Your task to perform on an android device: Go to accessibility settings Image 0: 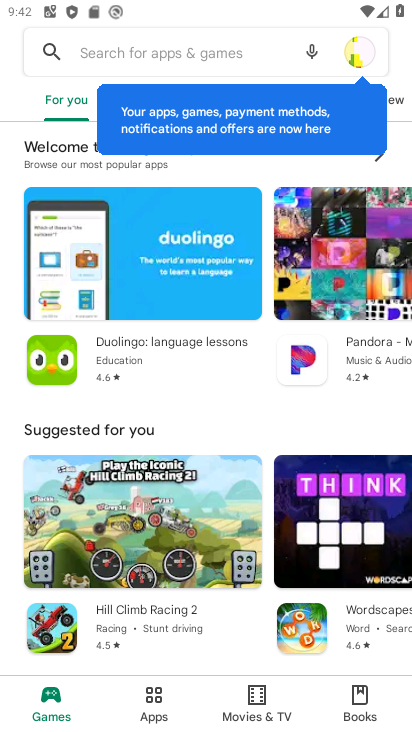
Step 0: press home button
Your task to perform on an android device: Go to accessibility settings Image 1: 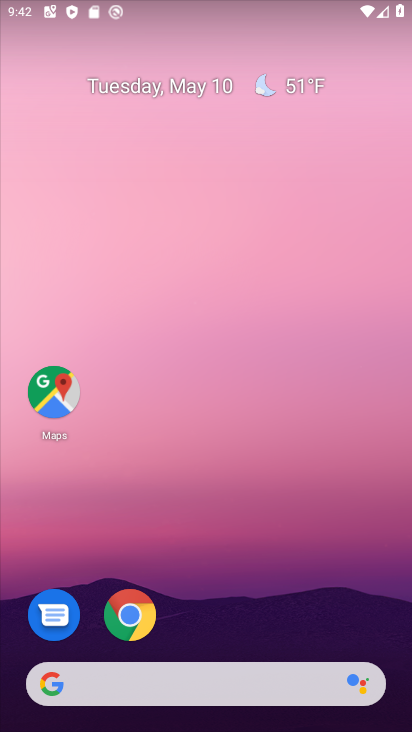
Step 1: drag from (234, 610) to (206, 114)
Your task to perform on an android device: Go to accessibility settings Image 2: 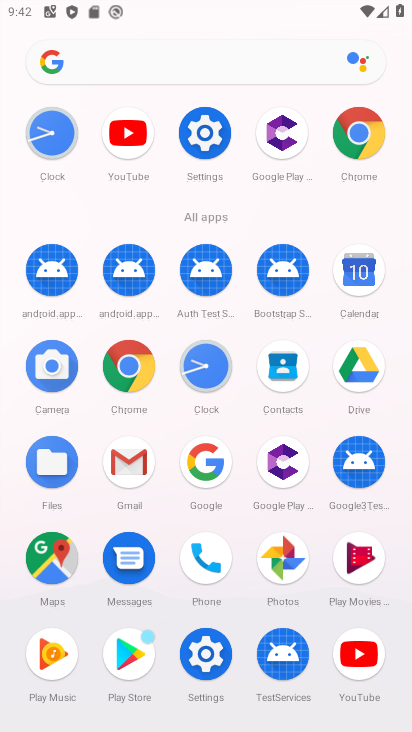
Step 2: click (194, 650)
Your task to perform on an android device: Go to accessibility settings Image 3: 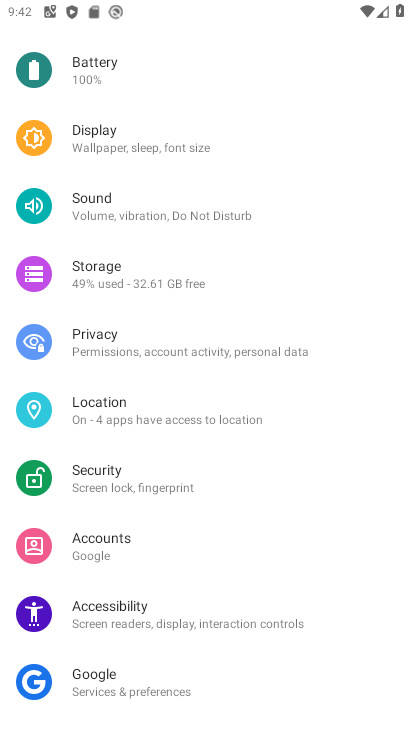
Step 3: click (167, 600)
Your task to perform on an android device: Go to accessibility settings Image 4: 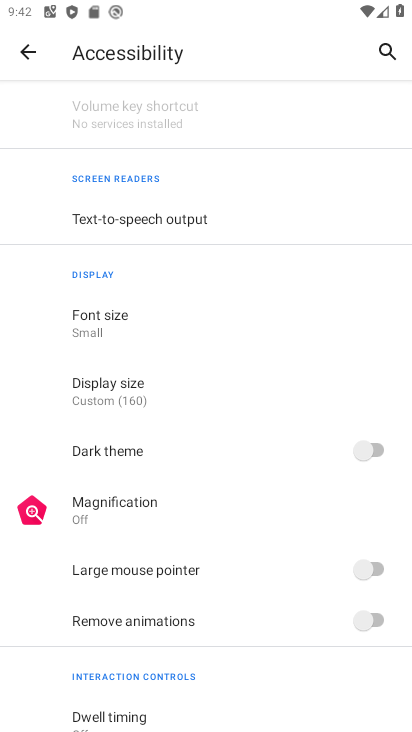
Step 4: task complete